Your task to perform on an android device: Open Maps and search for coffee Image 0: 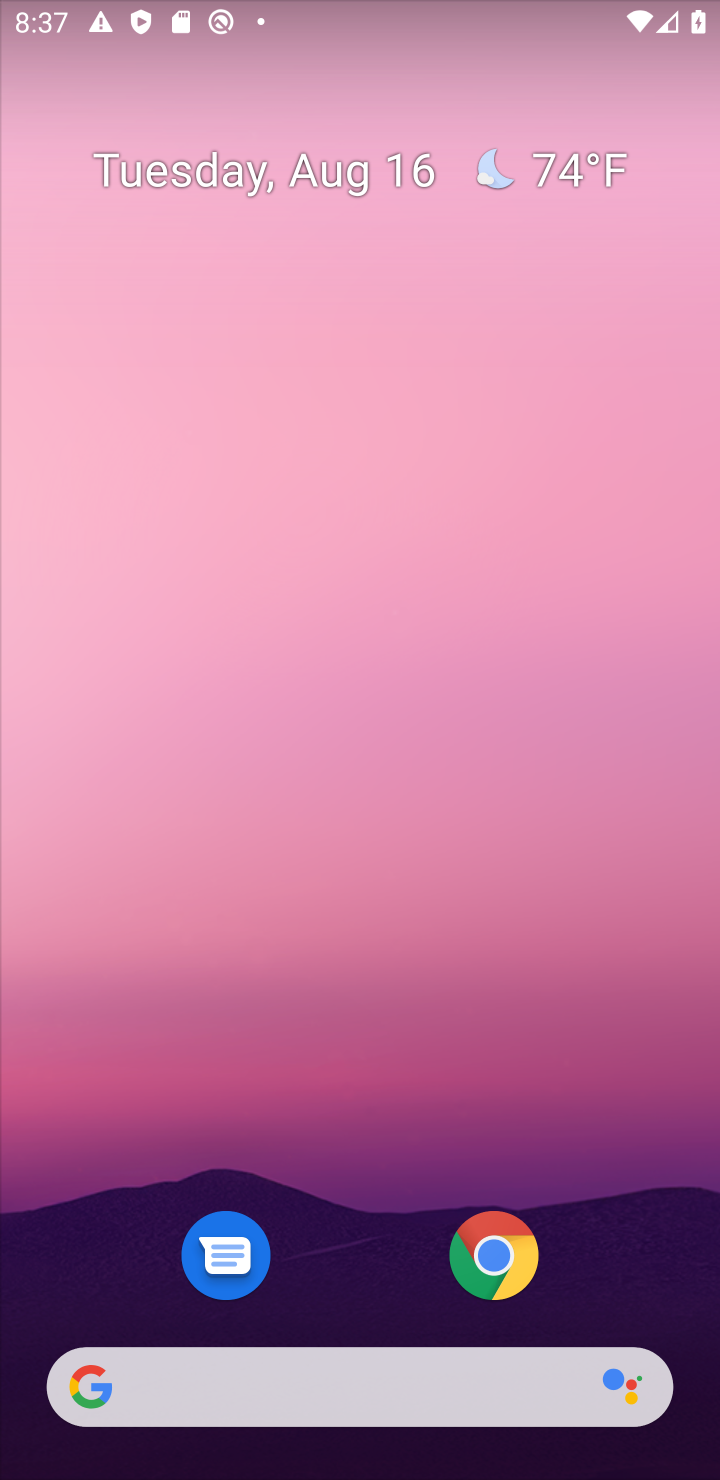
Step 0: drag from (392, 1368) to (453, 146)
Your task to perform on an android device: Open Maps and search for coffee Image 1: 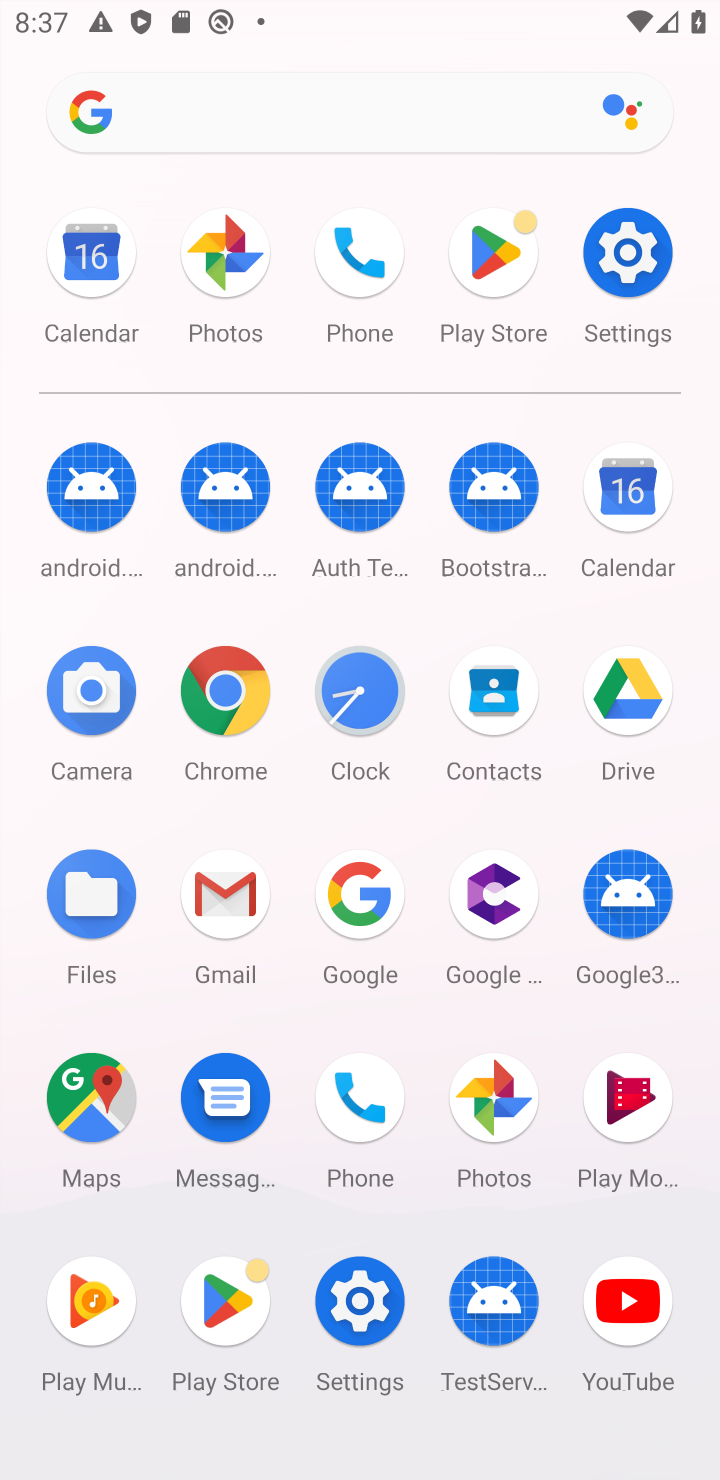
Step 1: click (75, 1096)
Your task to perform on an android device: Open Maps and search for coffee Image 2: 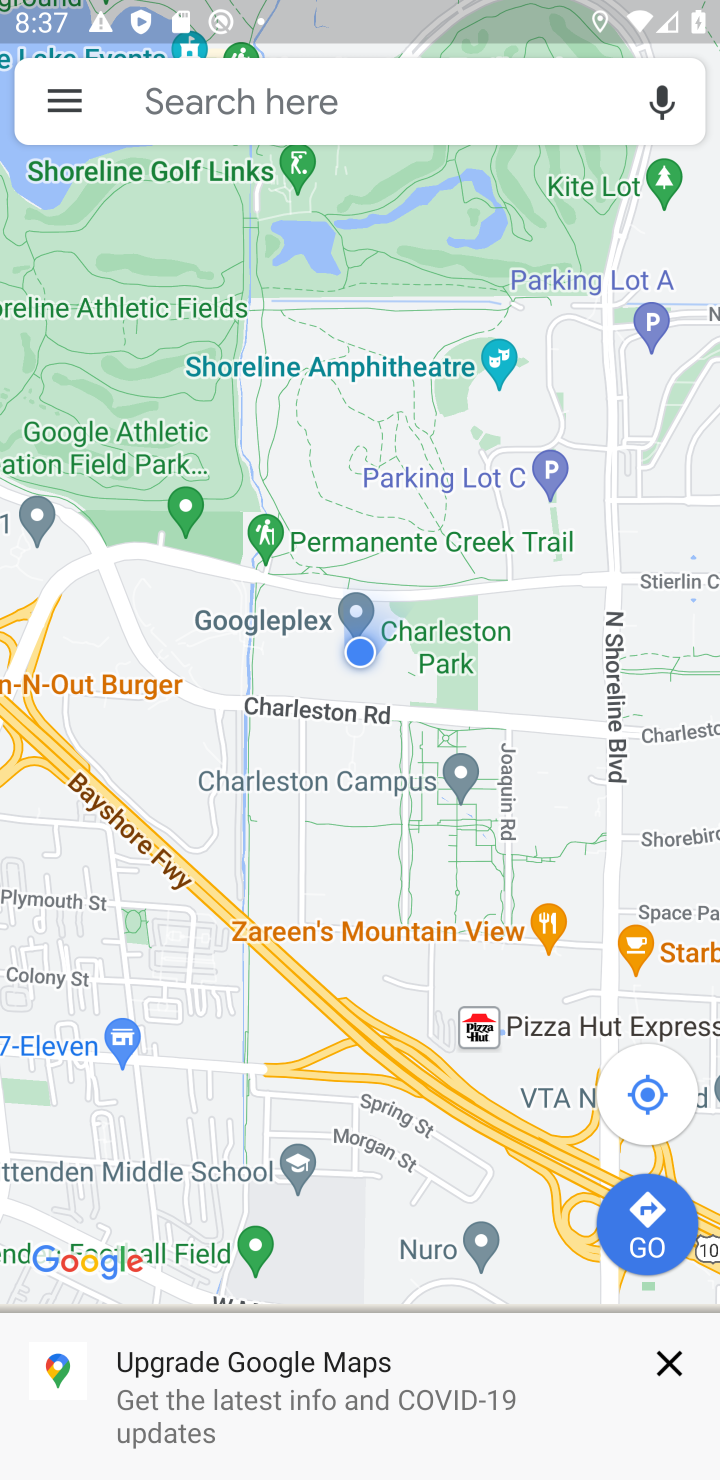
Step 2: click (240, 134)
Your task to perform on an android device: Open Maps and search for coffee Image 3: 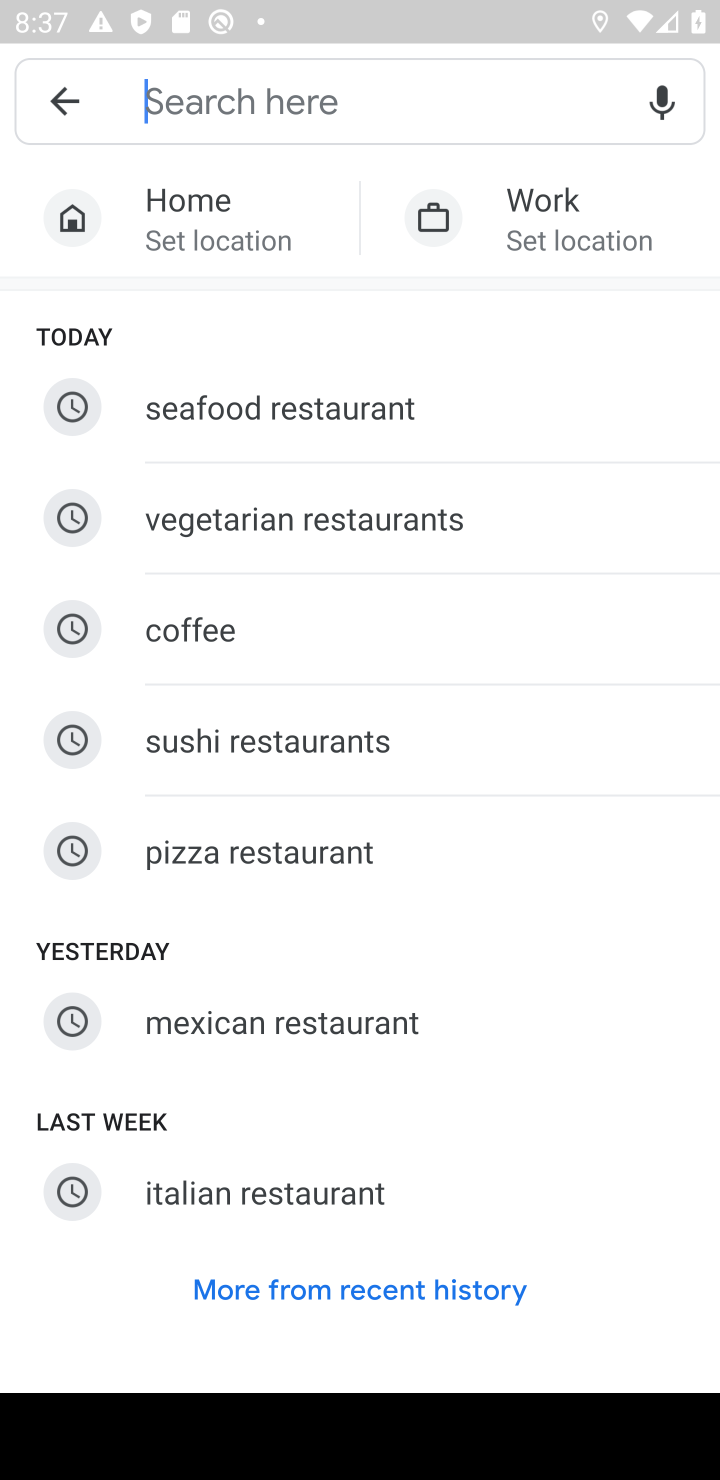
Step 3: click (294, 650)
Your task to perform on an android device: Open Maps and search for coffee Image 4: 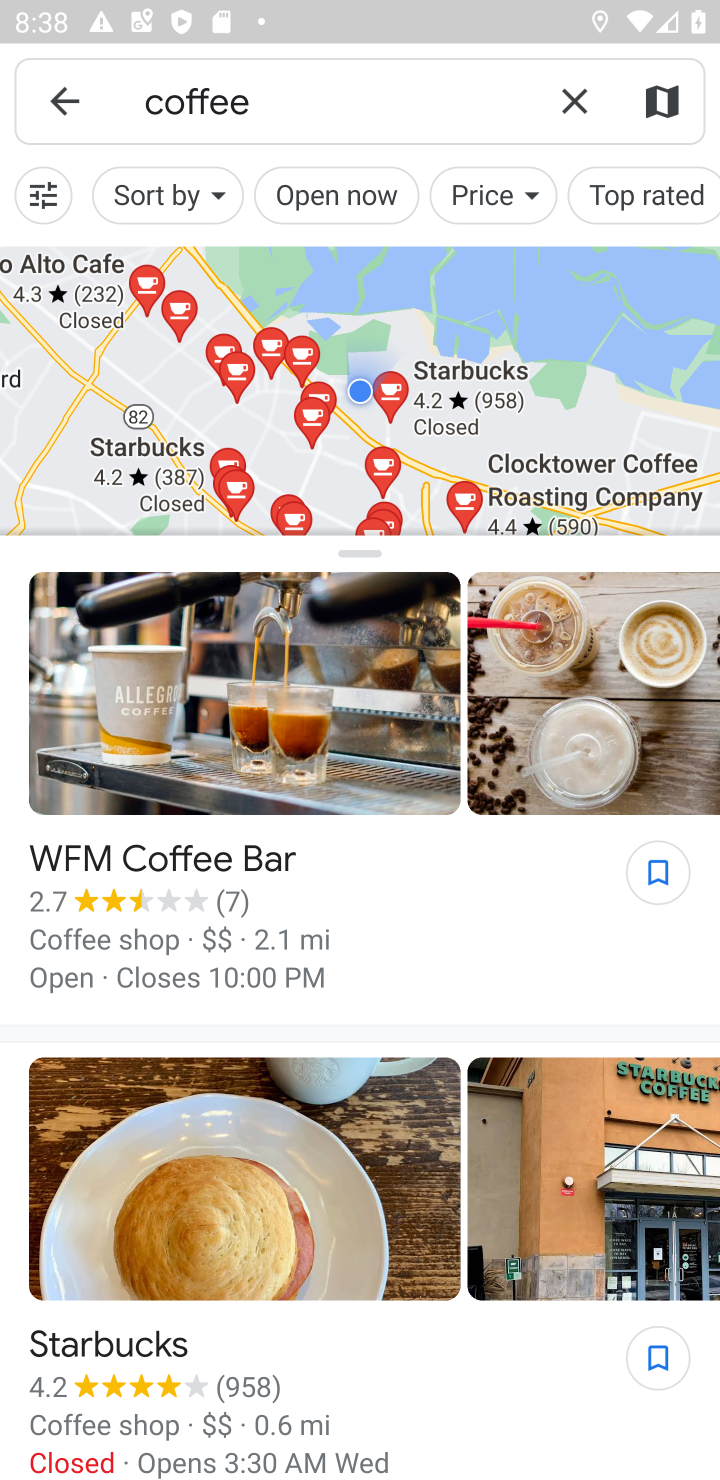
Step 4: task complete